Your task to perform on an android device: Open Android settings Image 0: 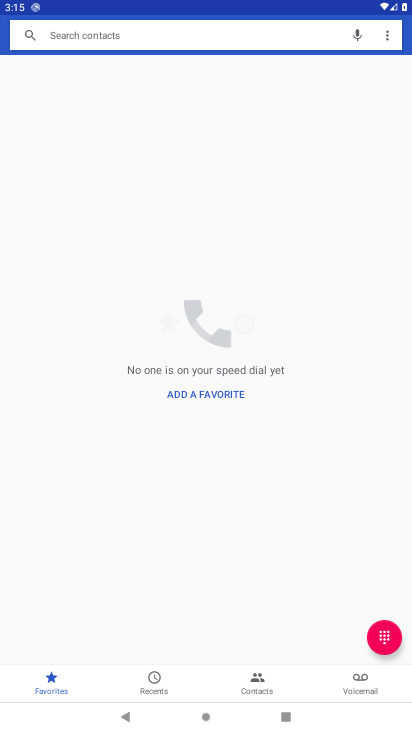
Step 0: press home button
Your task to perform on an android device: Open Android settings Image 1: 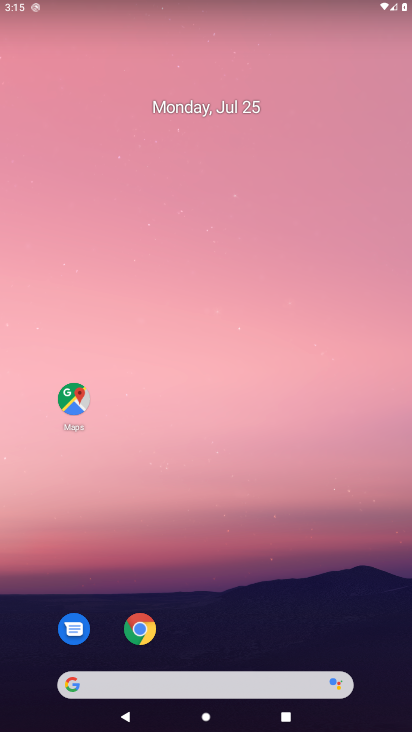
Step 1: drag from (22, 684) to (304, 241)
Your task to perform on an android device: Open Android settings Image 2: 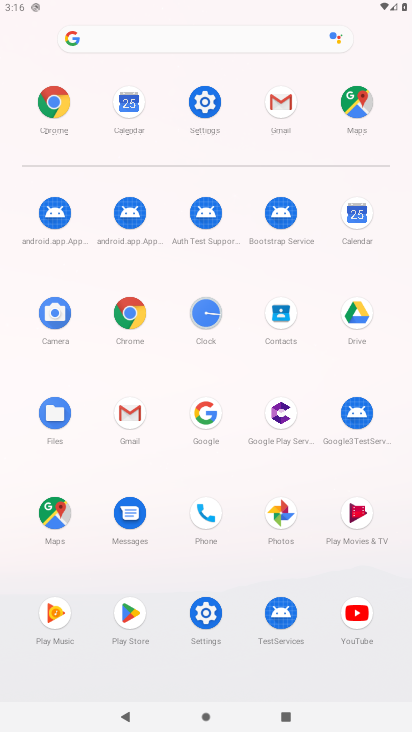
Step 2: click (208, 623)
Your task to perform on an android device: Open Android settings Image 3: 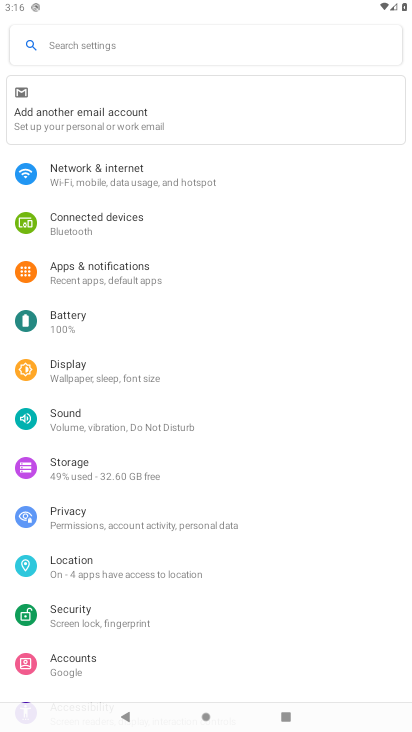
Step 3: drag from (189, 609) to (308, 134)
Your task to perform on an android device: Open Android settings Image 4: 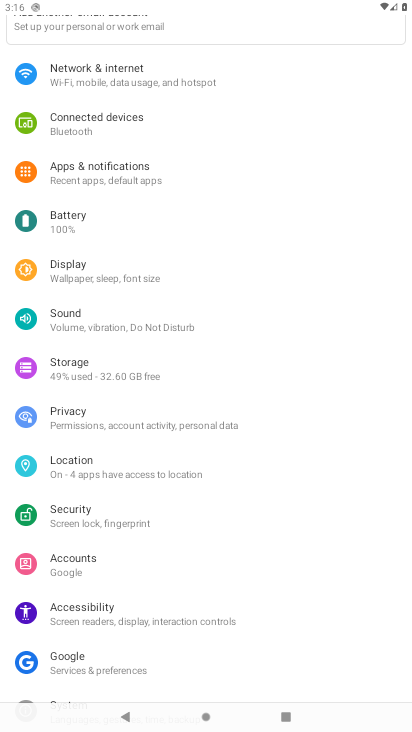
Step 4: drag from (110, 673) to (237, 295)
Your task to perform on an android device: Open Android settings Image 5: 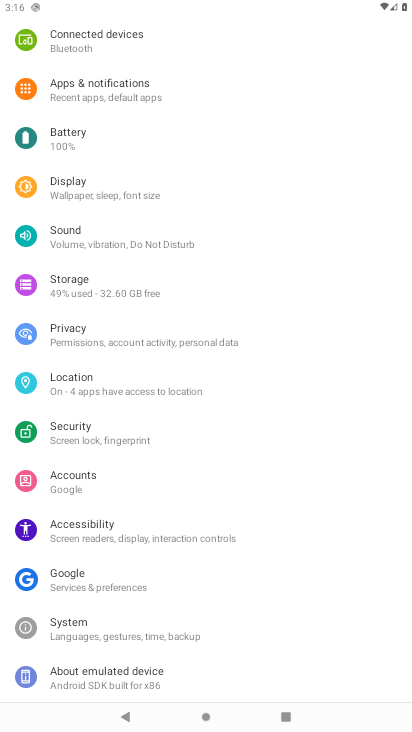
Step 5: click (66, 675)
Your task to perform on an android device: Open Android settings Image 6: 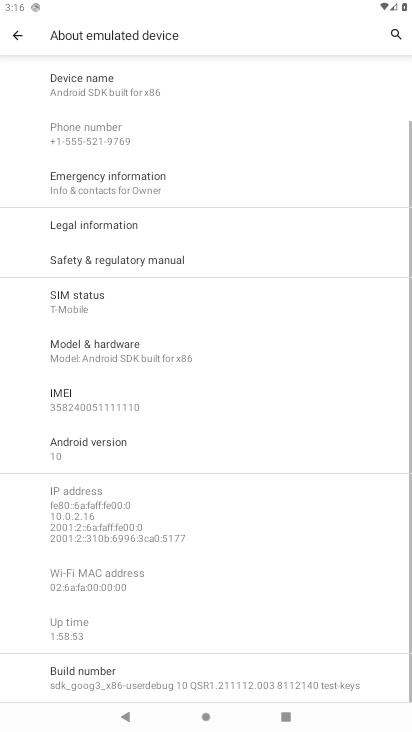
Step 6: click (87, 457)
Your task to perform on an android device: Open Android settings Image 7: 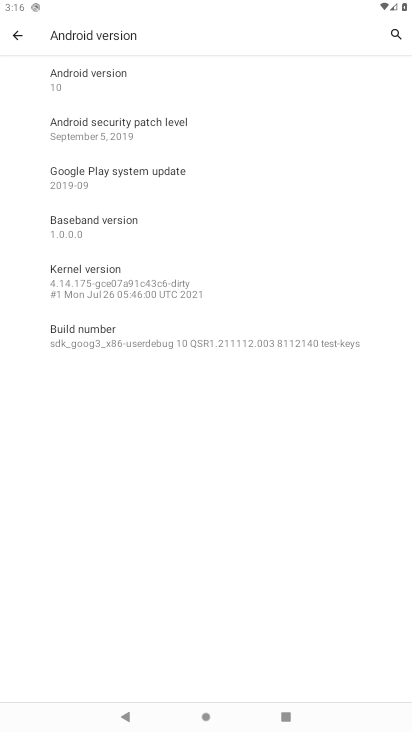
Step 7: task complete